Your task to perform on an android device: Clear the shopping cart on newegg.com. Add razer blackwidow to the cart on newegg.com, then select checkout. Image 0: 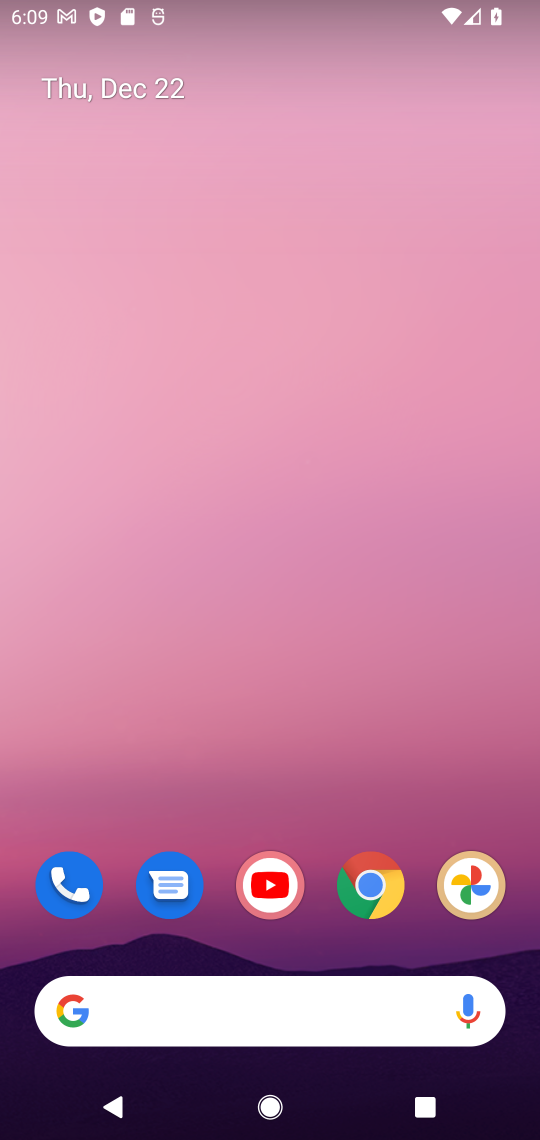
Step 0: click (356, 894)
Your task to perform on an android device: Clear the shopping cart on newegg.com. Add razer blackwidow to the cart on newegg.com, then select checkout. Image 1: 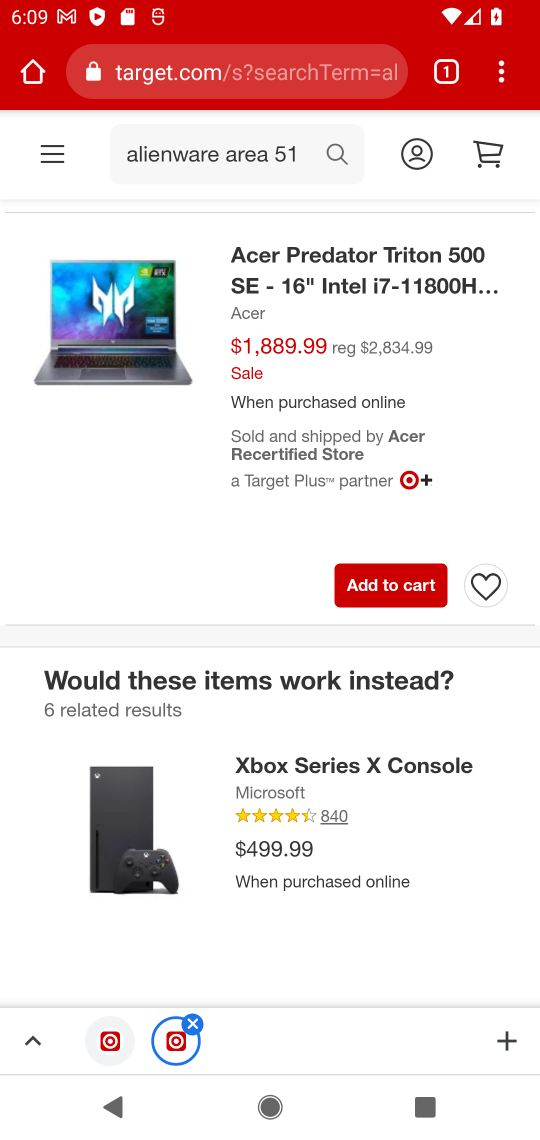
Step 1: click (167, 75)
Your task to perform on an android device: Clear the shopping cart on newegg.com. Add razer blackwidow to the cart on newegg.com, then select checkout. Image 2: 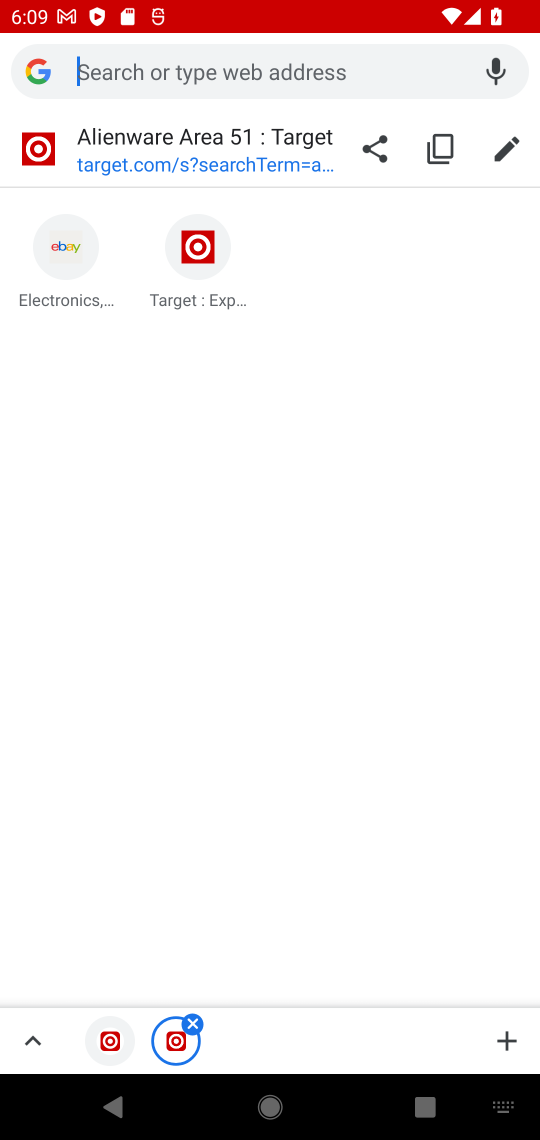
Step 2: type "newegg.com"
Your task to perform on an android device: Clear the shopping cart on newegg.com. Add razer blackwidow to the cart on newegg.com, then select checkout. Image 3: 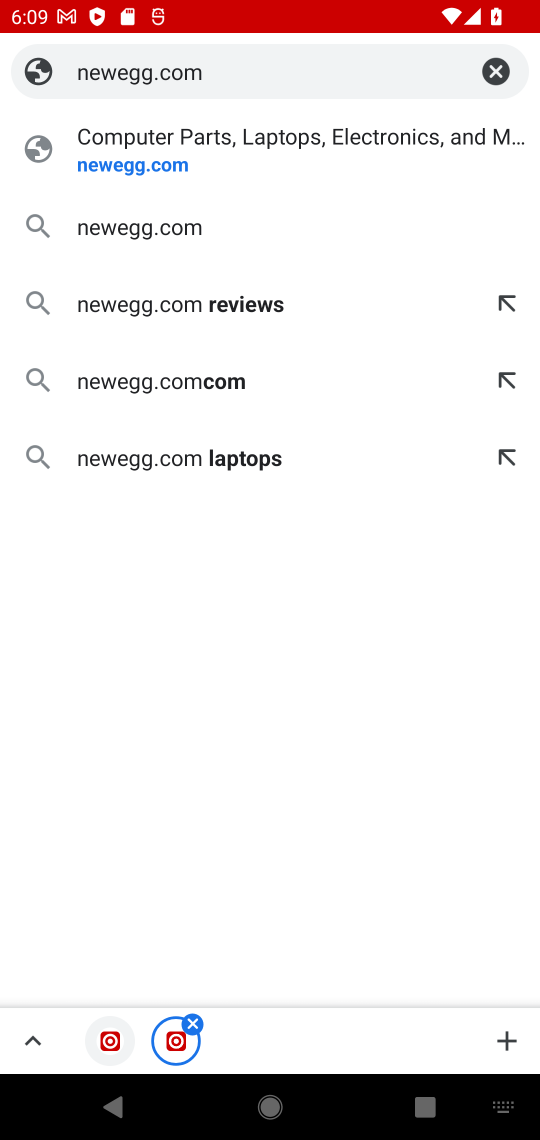
Step 3: click (121, 169)
Your task to perform on an android device: Clear the shopping cart on newegg.com. Add razer blackwidow to the cart on newegg.com, then select checkout. Image 4: 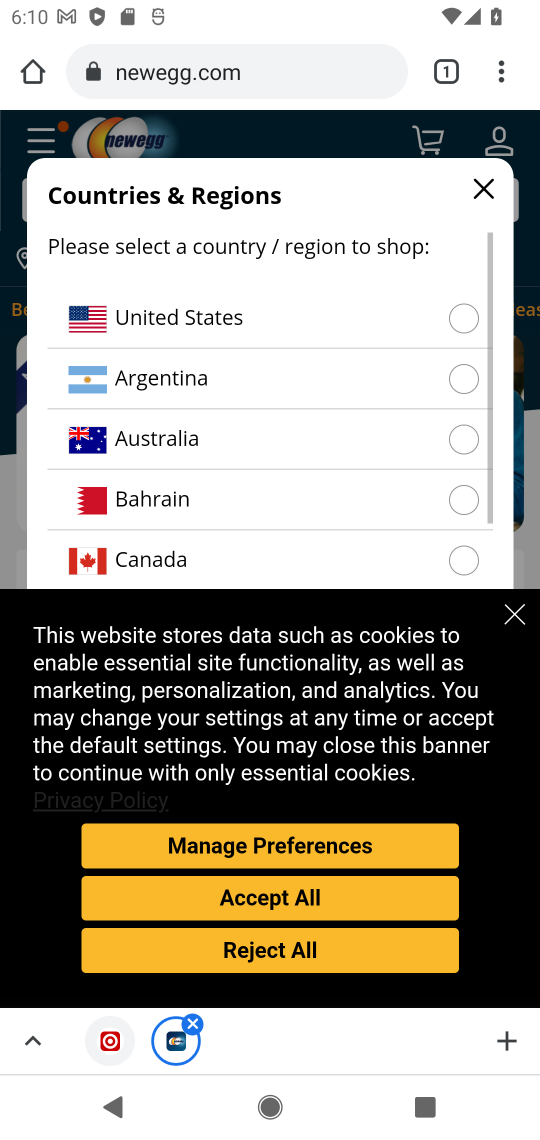
Step 4: click (514, 622)
Your task to perform on an android device: Clear the shopping cart on newegg.com. Add razer blackwidow to the cart on newegg.com, then select checkout. Image 5: 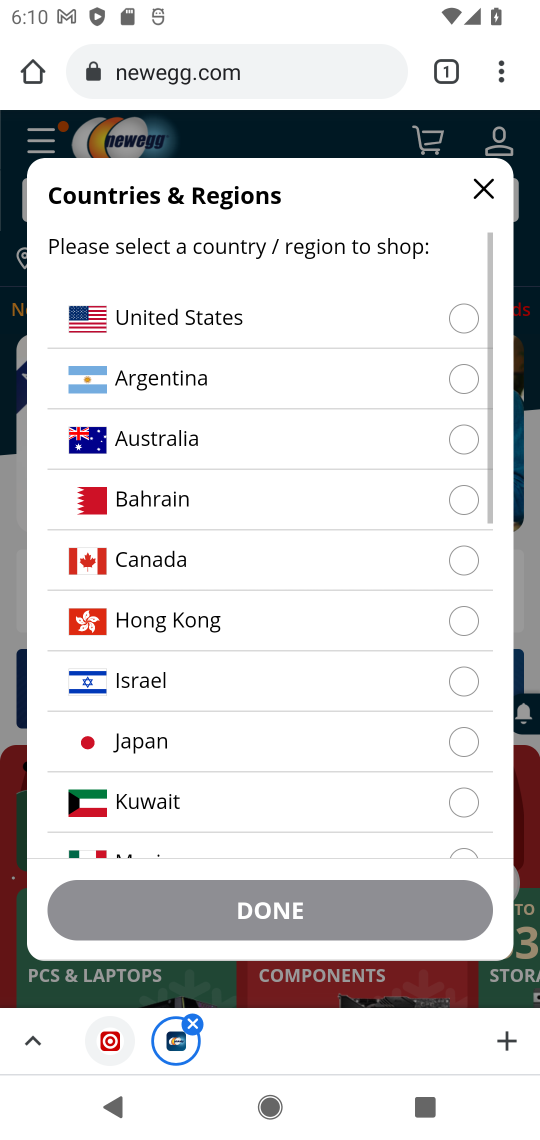
Step 5: click (173, 322)
Your task to perform on an android device: Clear the shopping cart on newegg.com. Add razer blackwidow to the cart on newegg.com, then select checkout. Image 6: 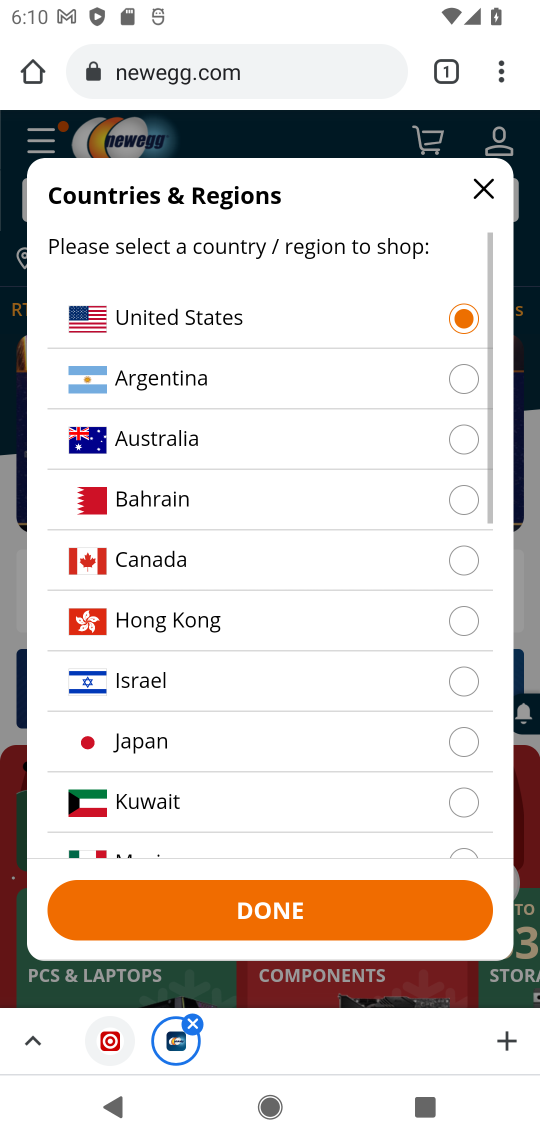
Step 6: click (230, 912)
Your task to perform on an android device: Clear the shopping cart on newegg.com. Add razer blackwidow to the cart on newegg.com, then select checkout. Image 7: 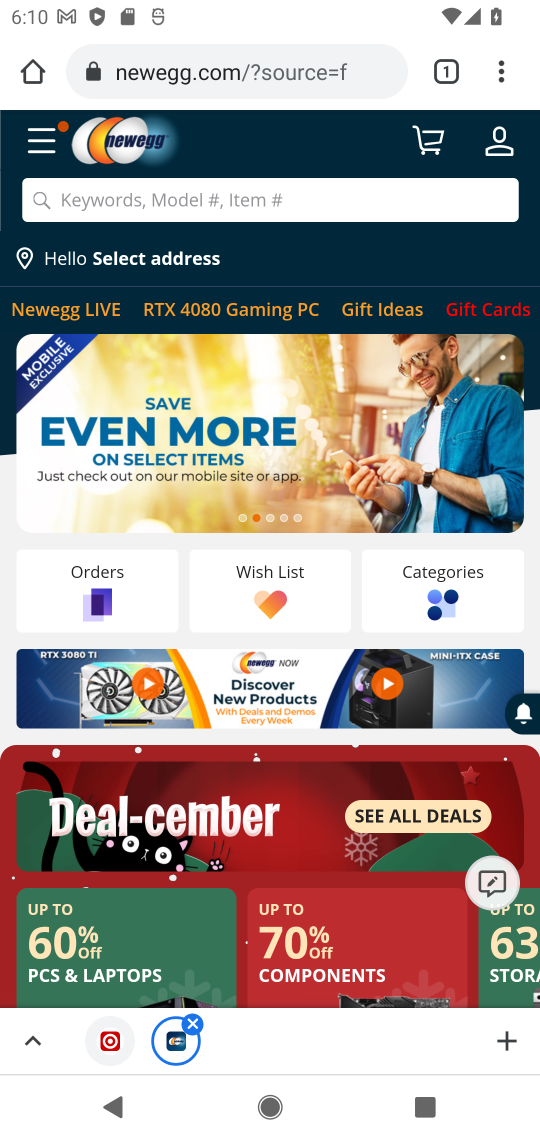
Step 7: click (432, 151)
Your task to perform on an android device: Clear the shopping cart on newegg.com. Add razer blackwidow to the cart on newegg.com, then select checkout. Image 8: 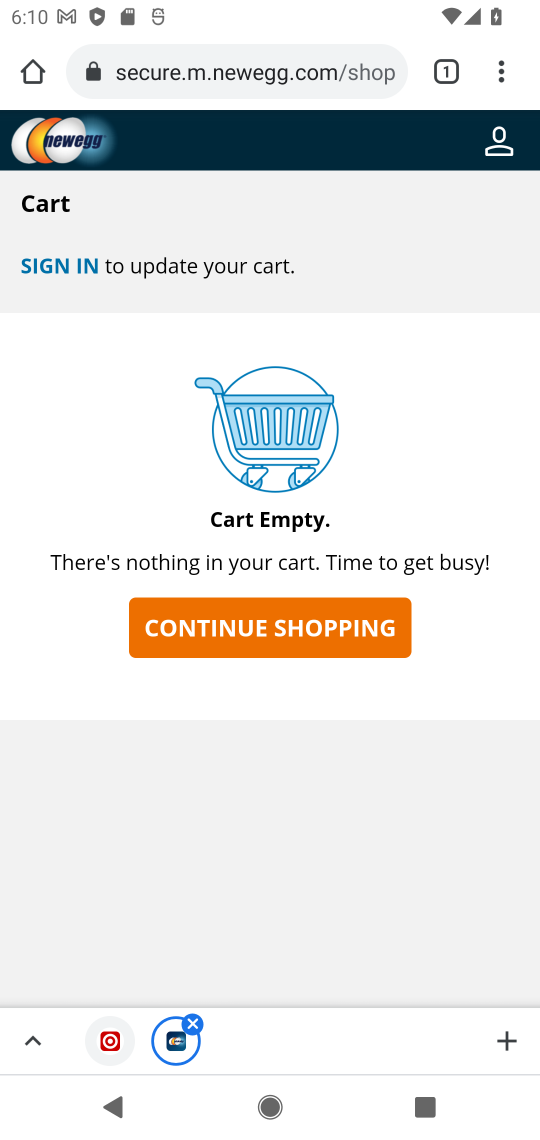
Step 8: click (257, 637)
Your task to perform on an android device: Clear the shopping cart on newegg.com. Add razer blackwidow to the cart on newegg.com, then select checkout. Image 9: 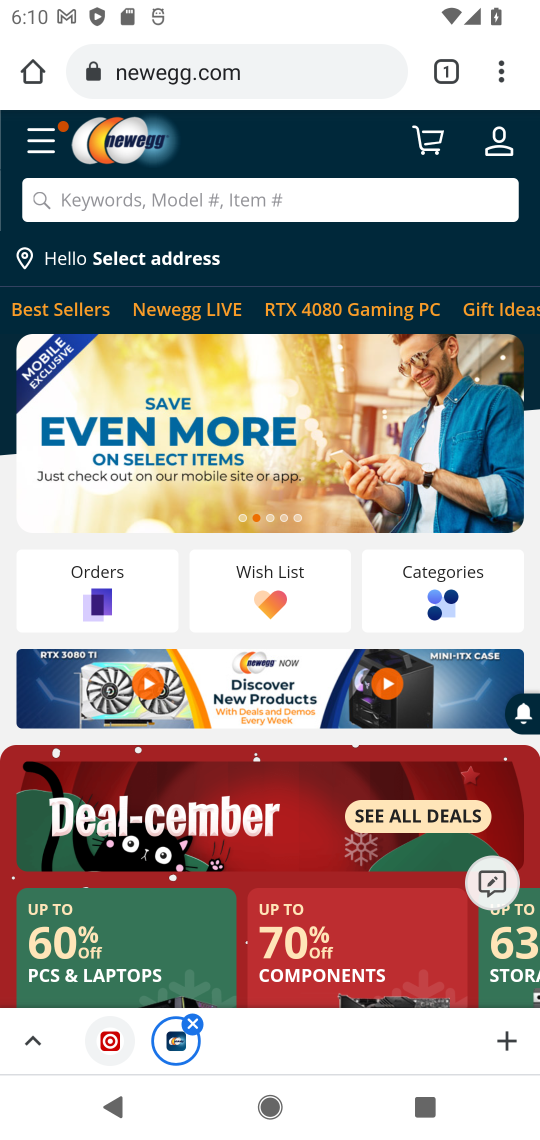
Step 9: click (82, 210)
Your task to perform on an android device: Clear the shopping cart on newegg.com. Add razer blackwidow to the cart on newegg.com, then select checkout. Image 10: 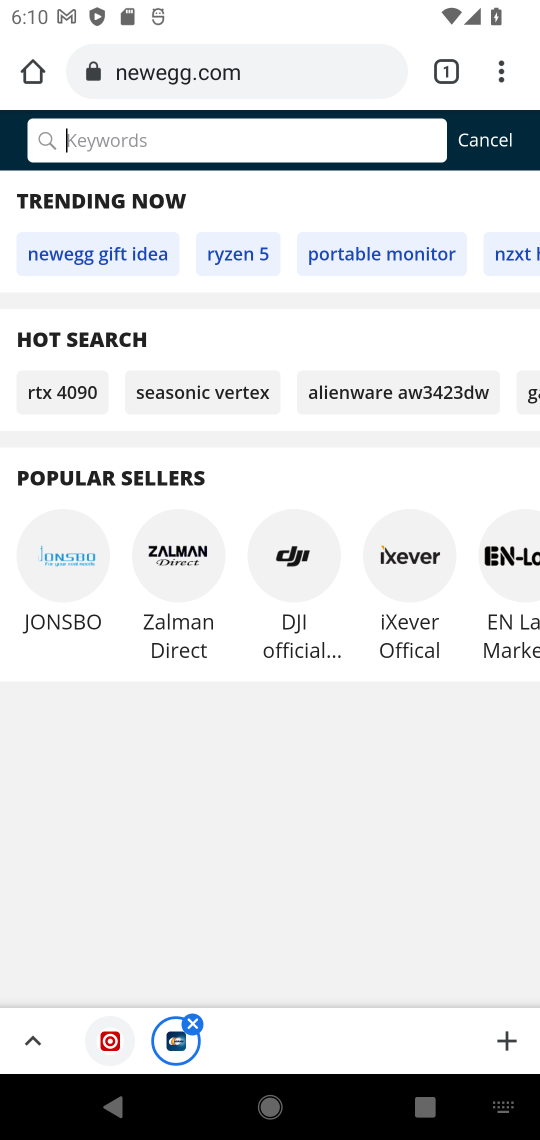
Step 10: type " razer blackwidow"
Your task to perform on an android device: Clear the shopping cart on newegg.com. Add razer blackwidow to the cart on newegg.com, then select checkout. Image 11: 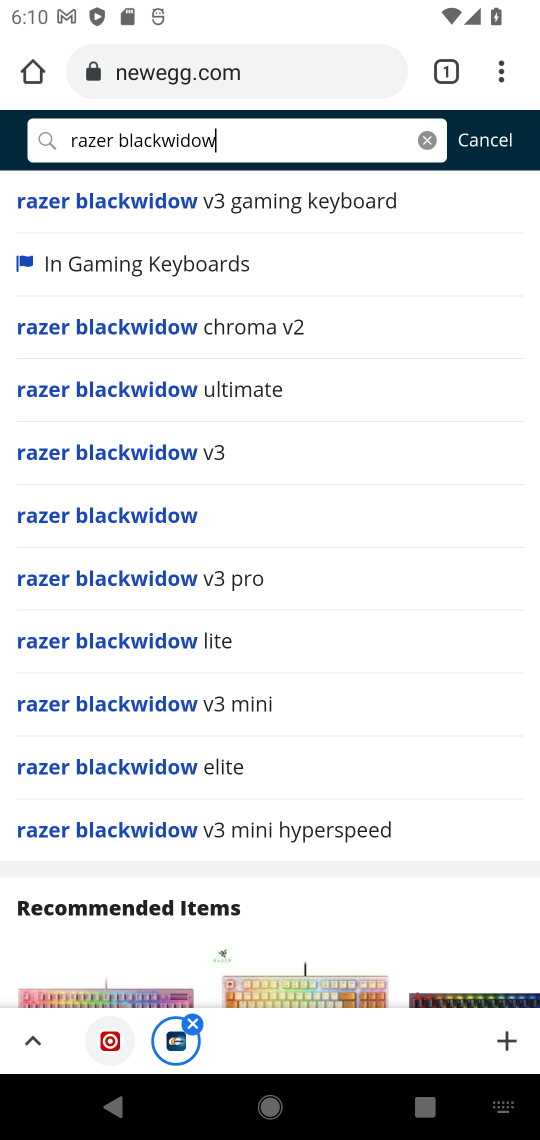
Step 11: click (108, 523)
Your task to perform on an android device: Clear the shopping cart on newegg.com. Add razer blackwidow to the cart on newegg.com, then select checkout. Image 12: 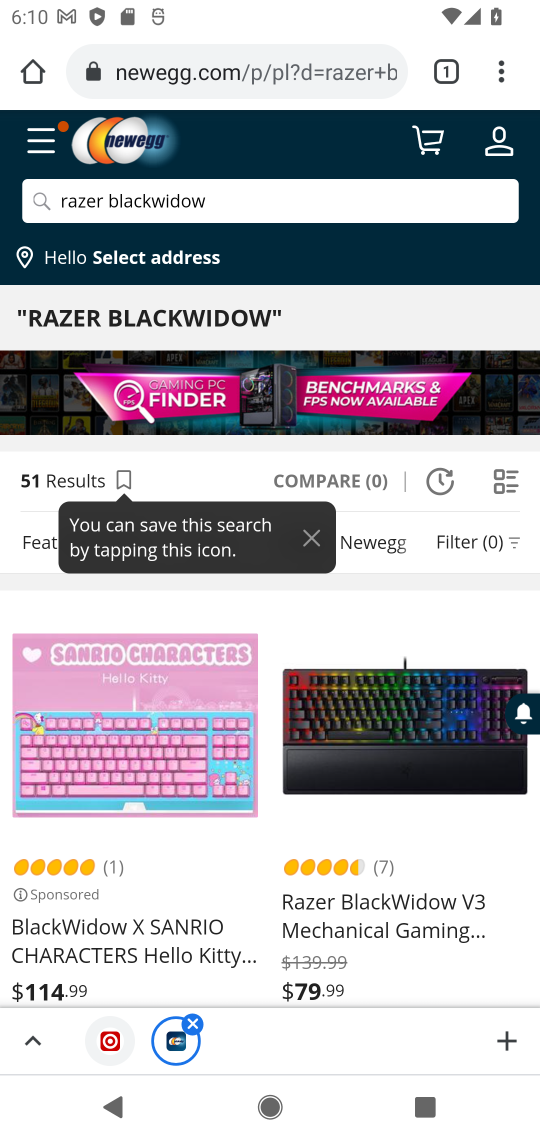
Step 12: drag from (156, 822) to (137, 412)
Your task to perform on an android device: Clear the shopping cart on newegg.com. Add razer blackwidow to the cart on newegg.com, then select checkout. Image 13: 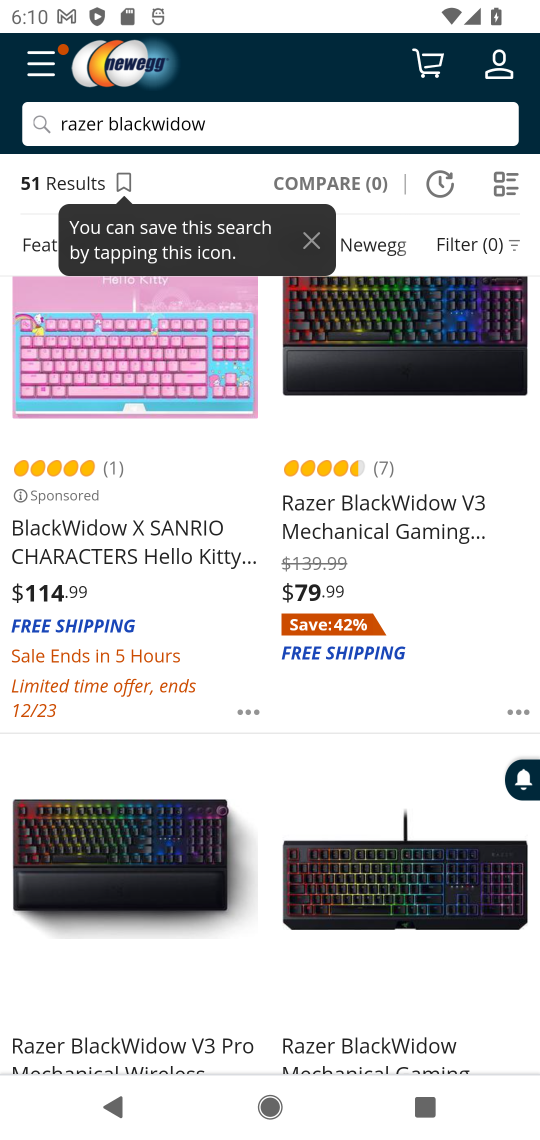
Step 13: click (321, 518)
Your task to perform on an android device: Clear the shopping cart on newegg.com. Add razer blackwidow to the cart on newegg.com, then select checkout. Image 14: 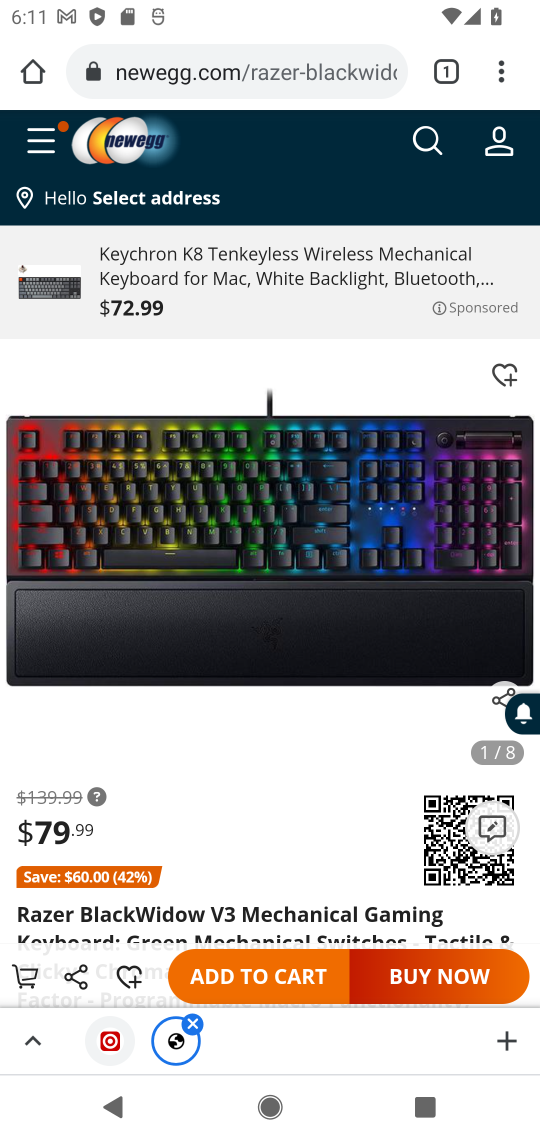
Step 14: click (244, 979)
Your task to perform on an android device: Clear the shopping cart on newegg.com. Add razer blackwidow to the cart on newegg.com, then select checkout. Image 15: 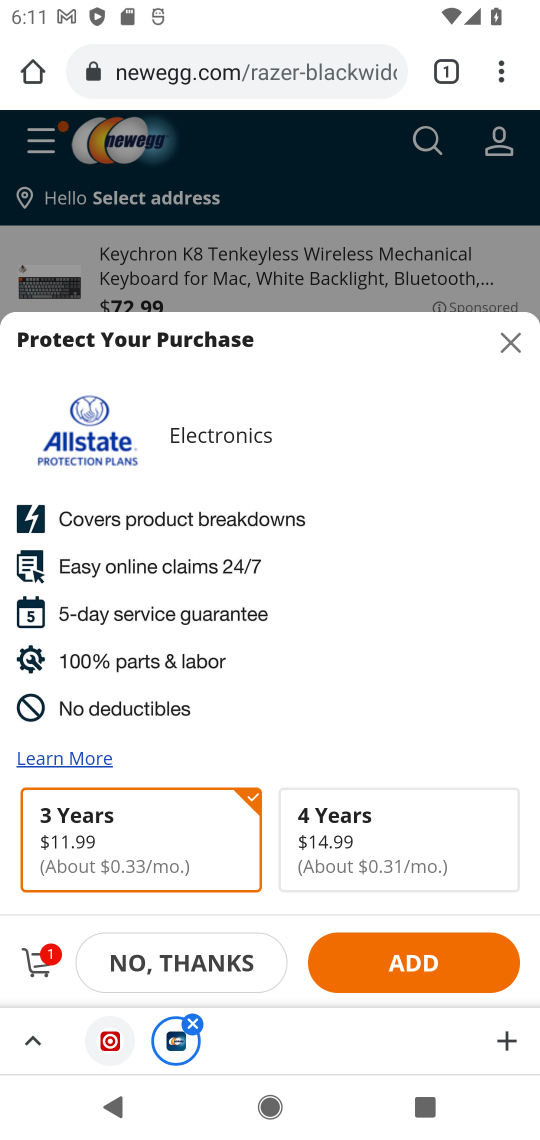
Step 15: click (36, 969)
Your task to perform on an android device: Clear the shopping cart on newegg.com. Add razer blackwidow to the cart on newegg.com, then select checkout. Image 16: 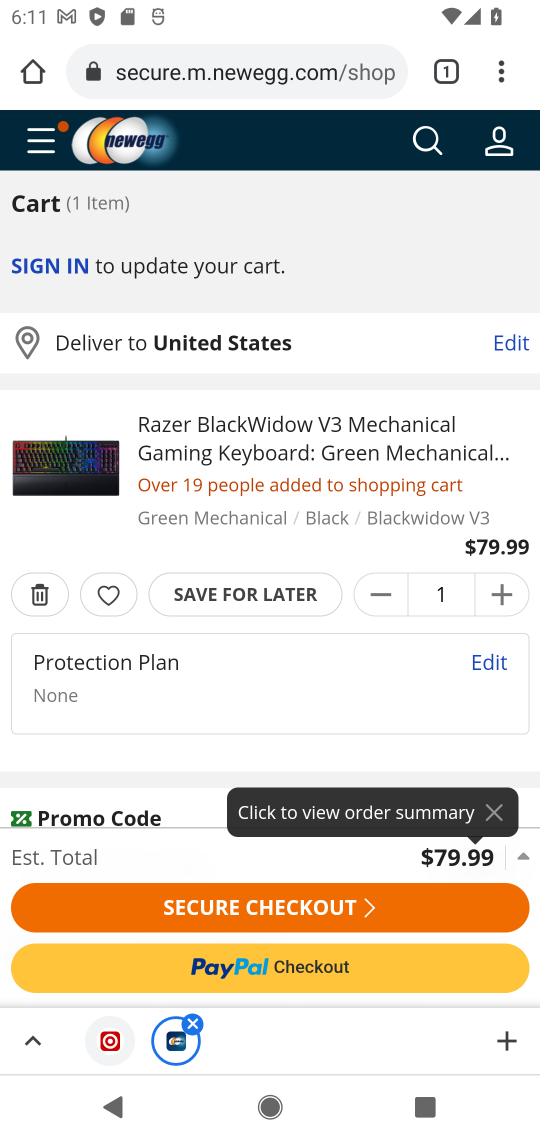
Step 16: click (232, 904)
Your task to perform on an android device: Clear the shopping cart on newegg.com. Add razer blackwidow to the cart on newegg.com, then select checkout. Image 17: 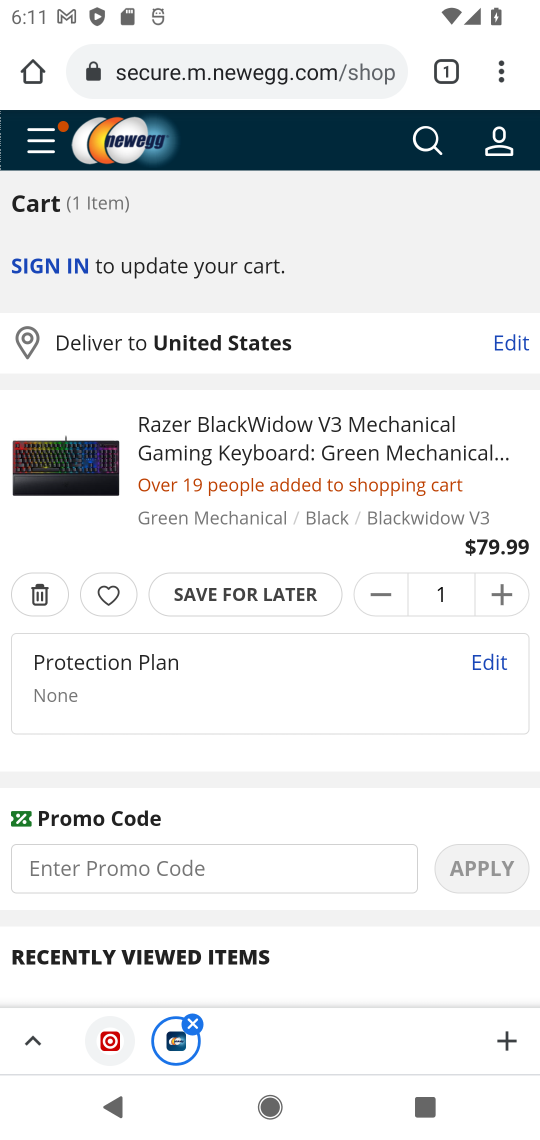
Step 17: click (232, 904)
Your task to perform on an android device: Clear the shopping cart on newegg.com. Add razer blackwidow to the cart on newegg.com, then select checkout. Image 18: 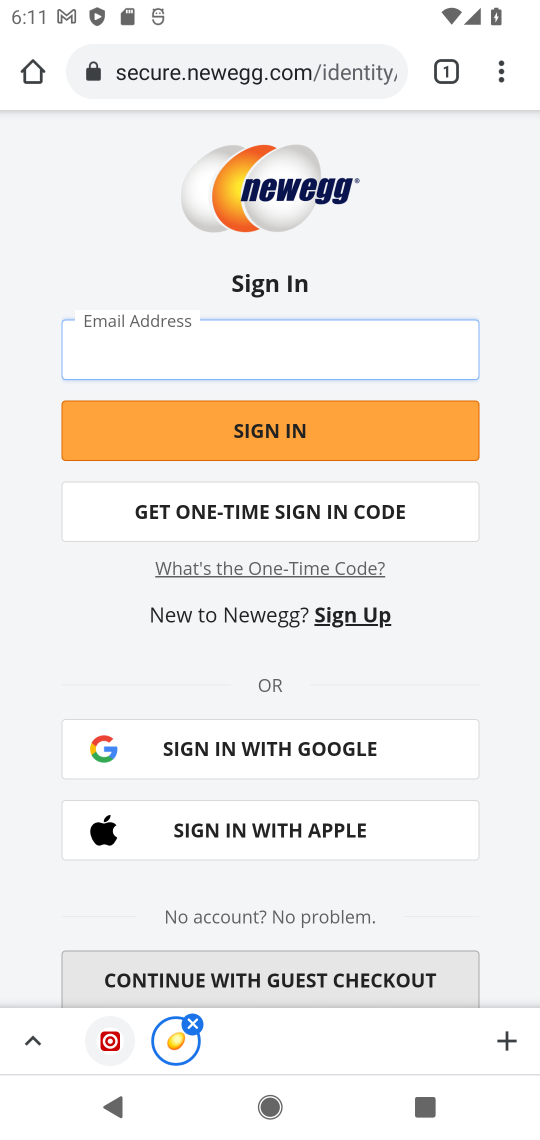
Step 18: task complete